Your task to perform on an android device: allow cookies in the chrome app Image 0: 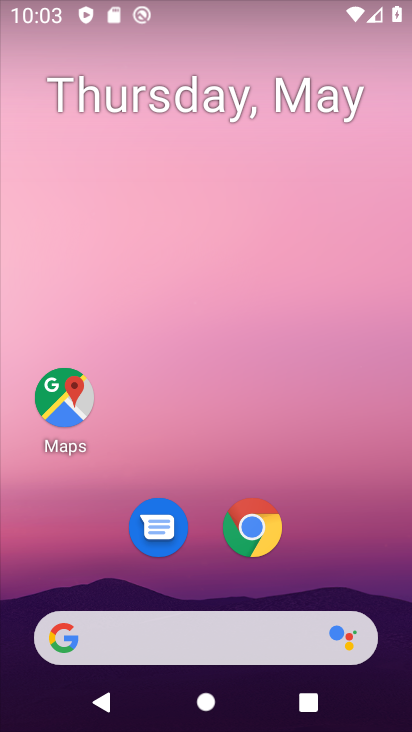
Step 0: click (266, 546)
Your task to perform on an android device: allow cookies in the chrome app Image 1: 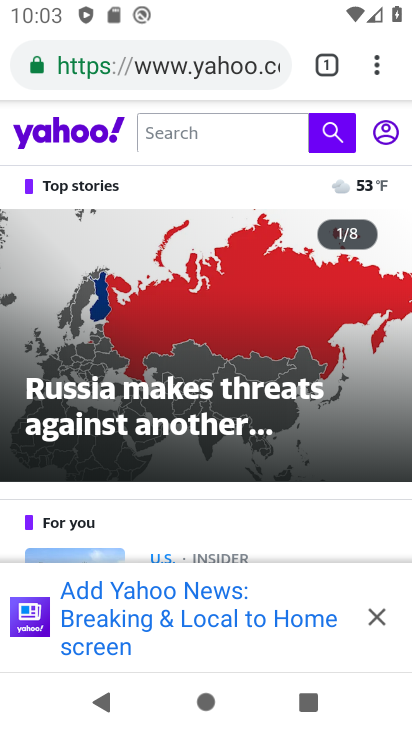
Step 1: click (374, 74)
Your task to perform on an android device: allow cookies in the chrome app Image 2: 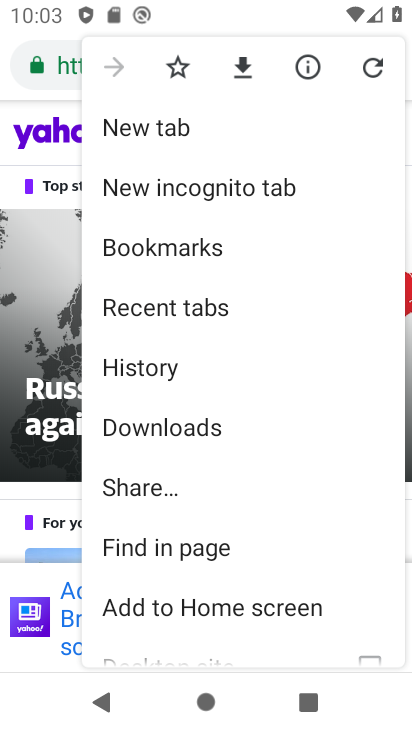
Step 2: click (225, 210)
Your task to perform on an android device: allow cookies in the chrome app Image 3: 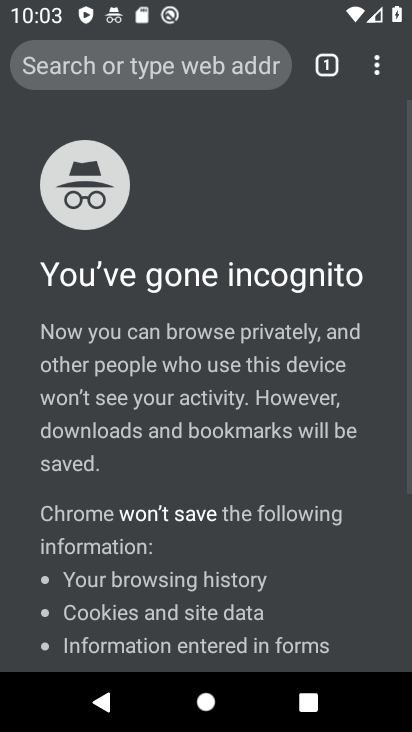
Step 3: click (223, 207)
Your task to perform on an android device: allow cookies in the chrome app Image 4: 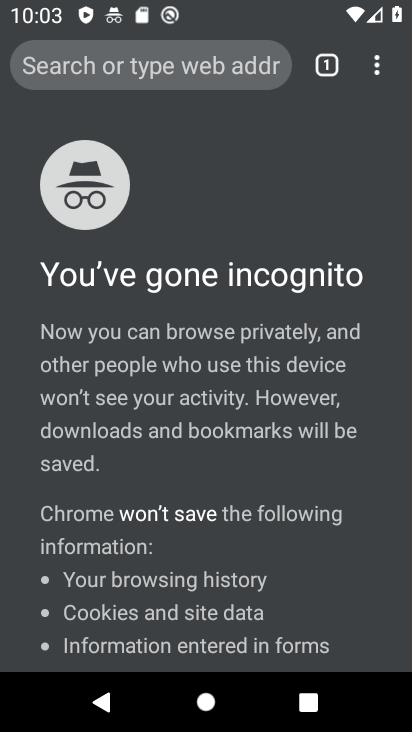
Step 4: click (333, 67)
Your task to perform on an android device: allow cookies in the chrome app Image 5: 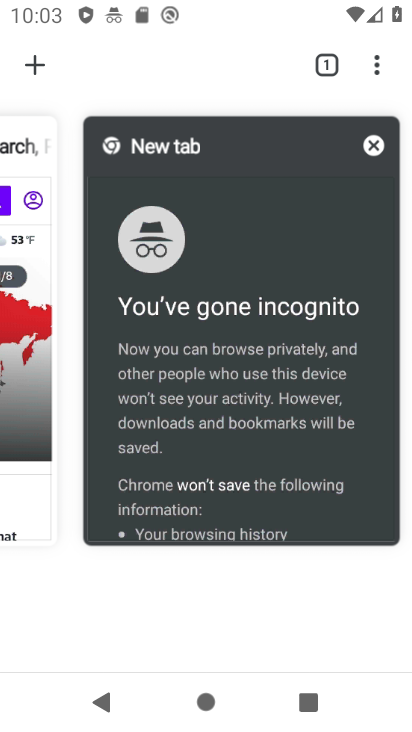
Step 5: click (38, 64)
Your task to perform on an android device: allow cookies in the chrome app Image 6: 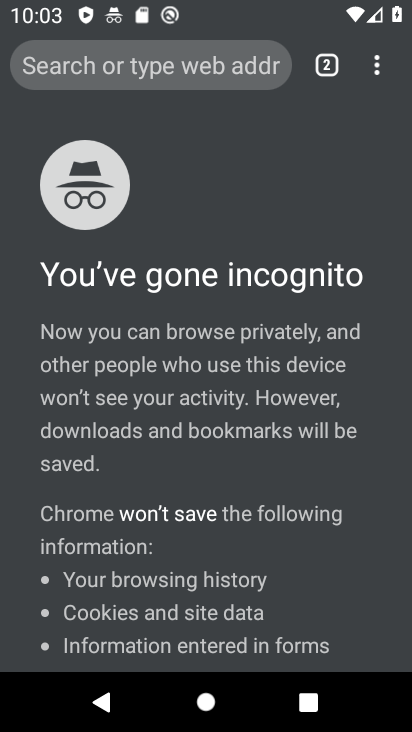
Step 6: click (328, 65)
Your task to perform on an android device: allow cookies in the chrome app Image 7: 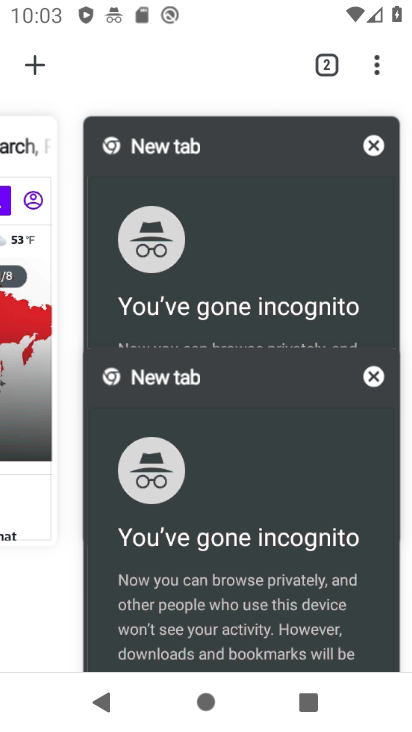
Step 7: click (378, 150)
Your task to perform on an android device: allow cookies in the chrome app Image 8: 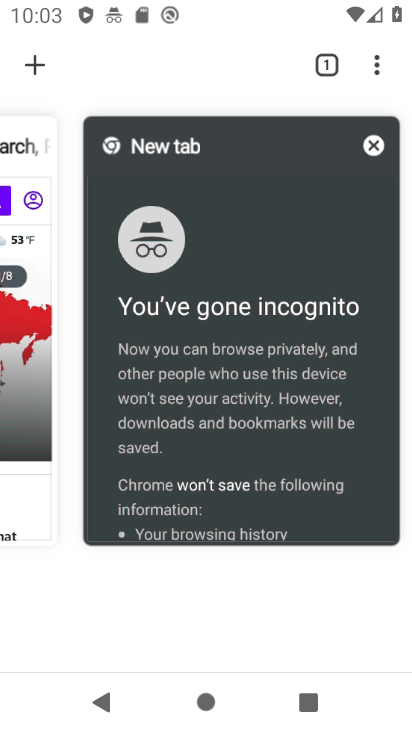
Step 8: click (371, 150)
Your task to perform on an android device: allow cookies in the chrome app Image 9: 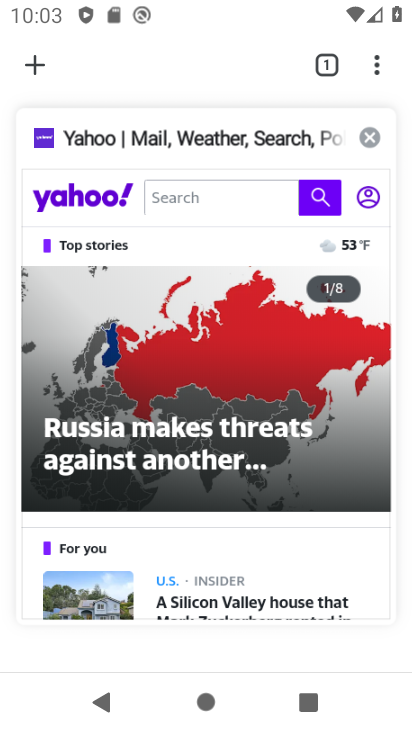
Step 9: click (130, 134)
Your task to perform on an android device: allow cookies in the chrome app Image 10: 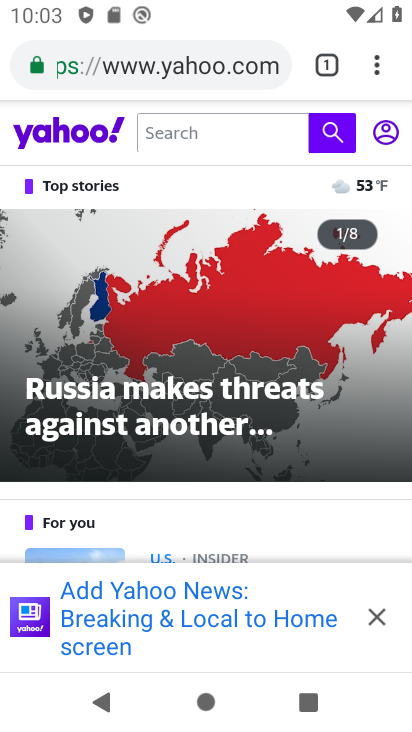
Step 10: click (375, 69)
Your task to perform on an android device: allow cookies in the chrome app Image 11: 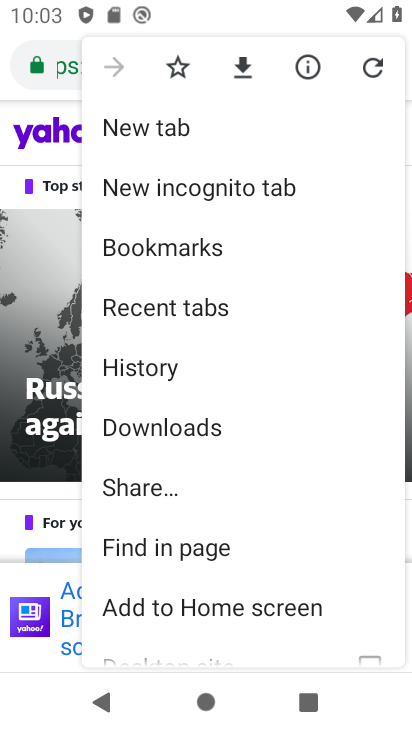
Step 11: drag from (194, 594) to (255, 334)
Your task to perform on an android device: allow cookies in the chrome app Image 12: 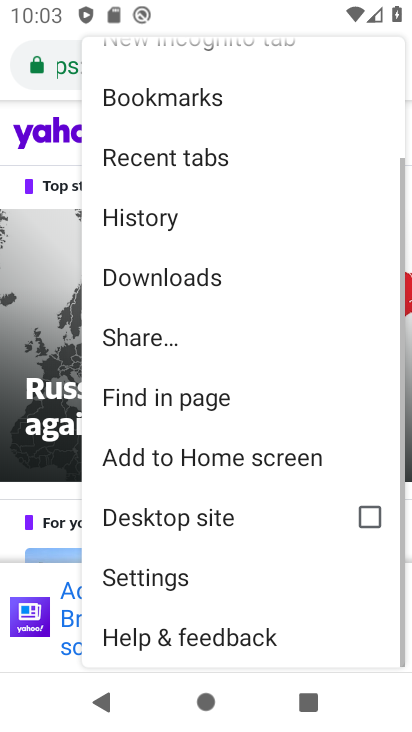
Step 12: drag from (78, 593) to (9, 595)
Your task to perform on an android device: allow cookies in the chrome app Image 13: 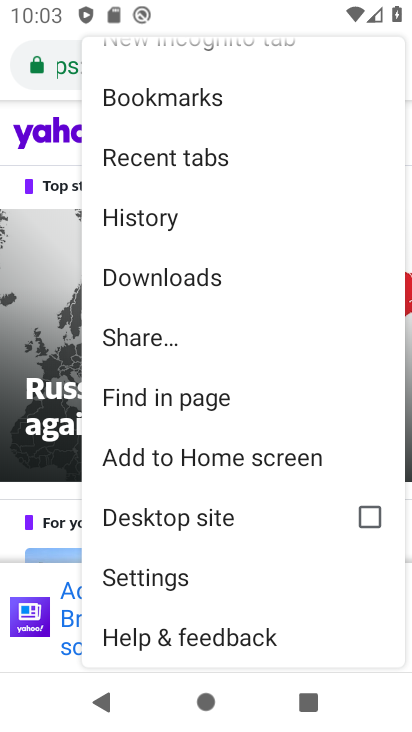
Step 13: click (119, 589)
Your task to perform on an android device: allow cookies in the chrome app Image 14: 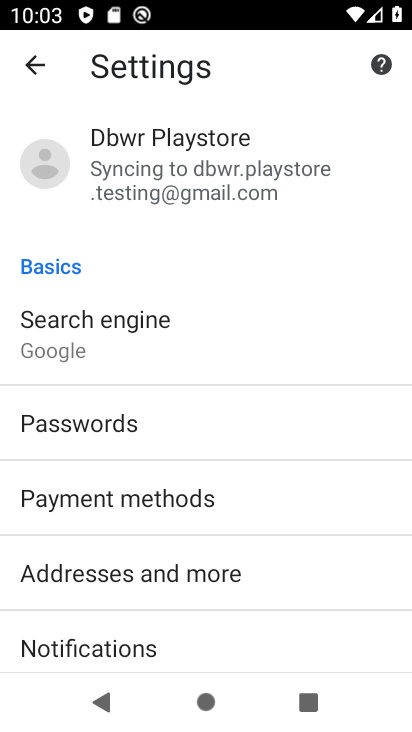
Step 14: click (129, 402)
Your task to perform on an android device: allow cookies in the chrome app Image 15: 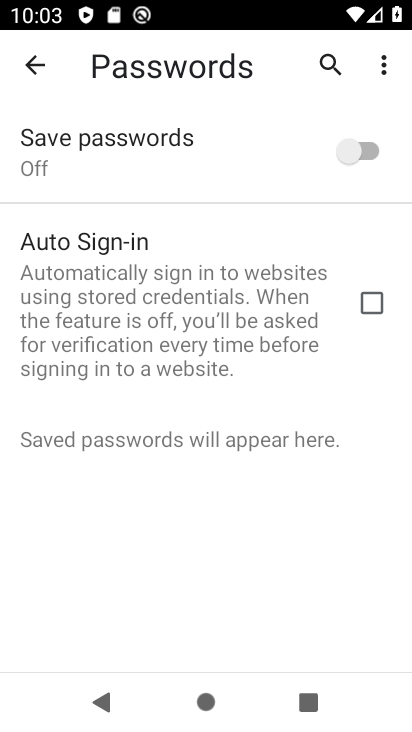
Step 15: click (29, 69)
Your task to perform on an android device: allow cookies in the chrome app Image 16: 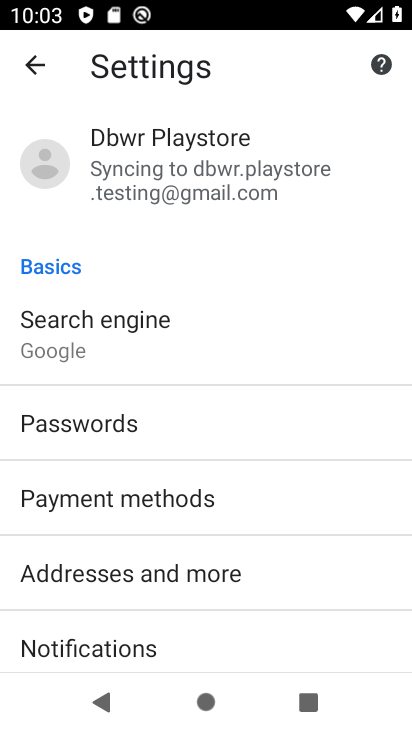
Step 16: drag from (222, 602) to (225, 176)
Your task to perform on an android device: allow cookies in the chrome app Image 17: 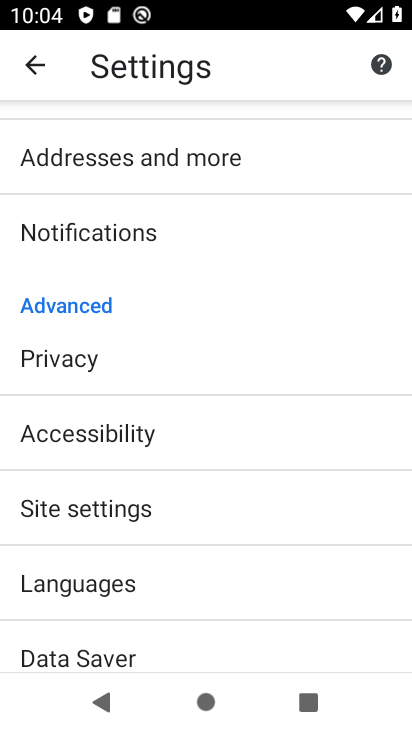
Step 17: click (100, 512)
Your task to perform on an android device: allow cookies in the chrome app Image 18: 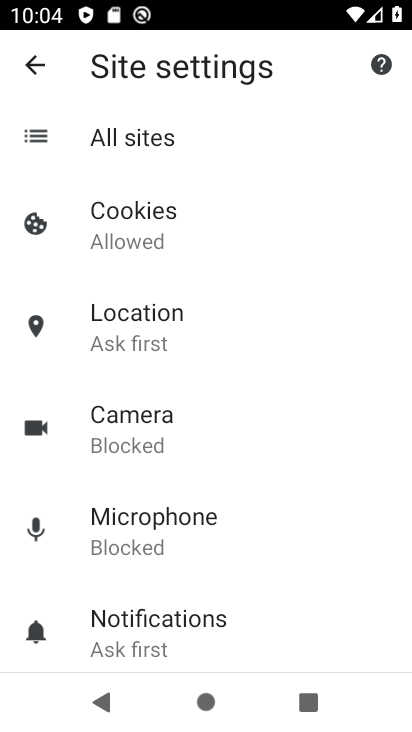
Step 18: click (156, 232)
Your task to perform on an android device: allow cookies in the chrome app Image 19: 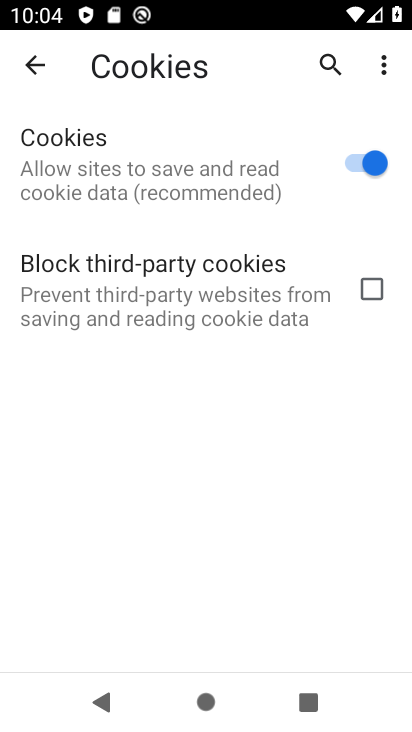
Step 19: task complete